Your task to perform on an android device: turn pop-ups off in chrome Image 0: 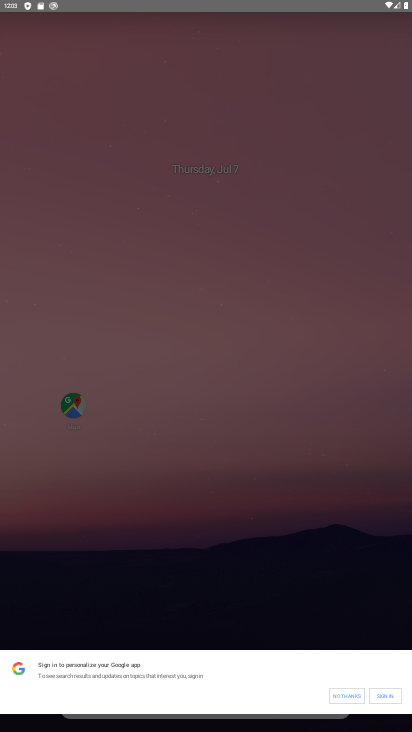
Step 0: press home button
Your task to perform on an android device: turn pop-ups off in chrome Image 1: 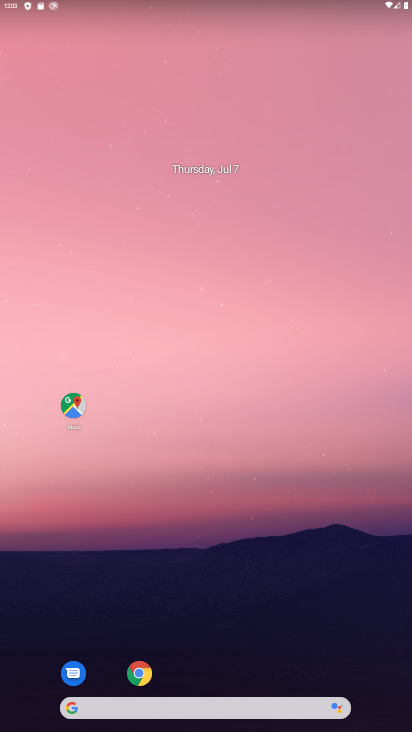
Step 1: drag from (221, 654) to (241, 230)
Your task to perform on an android device: turn pop-ups off in chrome Image 2: 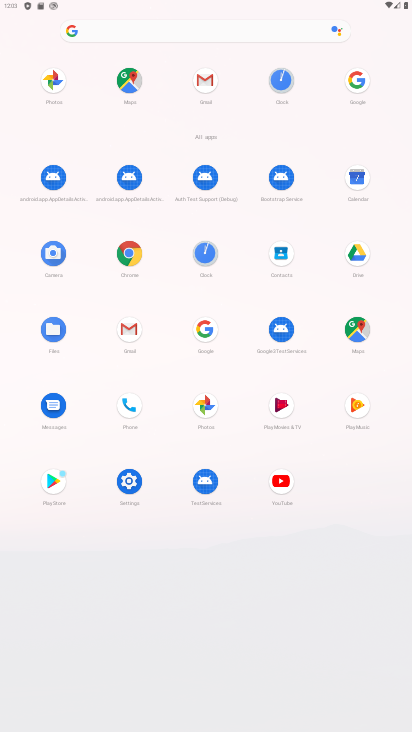
Step 2: click (129, 245)
Your task to perform on an android device: turn pop-ups off in chrome Image 3: 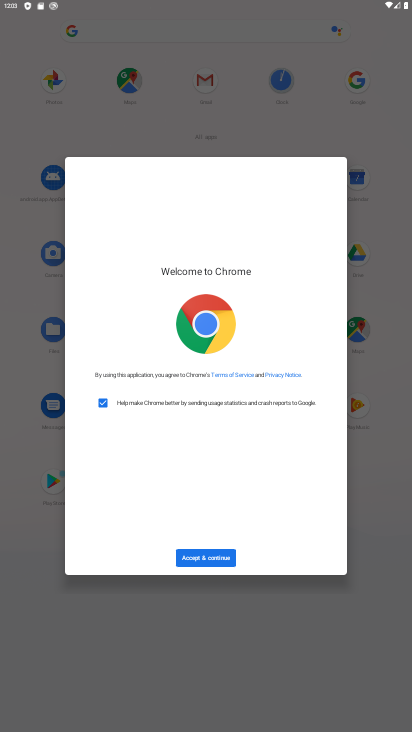
Step 3: click (202, 555)
Your task to perform on an android device: turn pop-ups off in chrome Image 4: 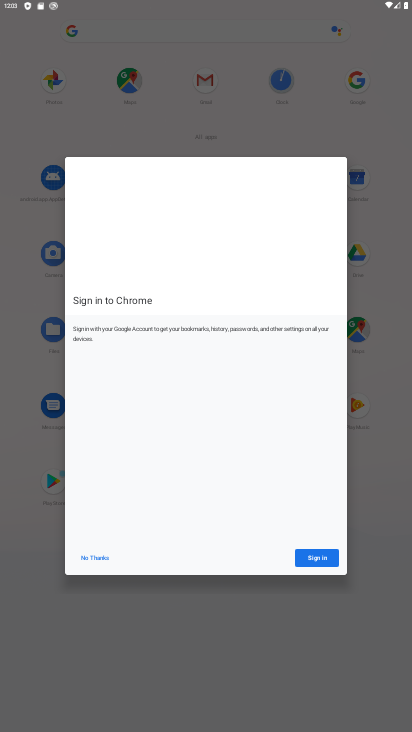
Step 4: click (311, 567)
Your task to perform on an android device: turn pop-ups off in chrome Image 5: 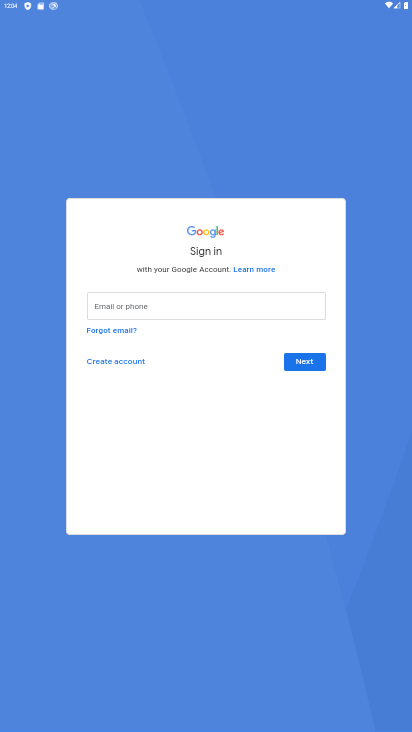
Step 5: task complete